Your task to perform on an android device: turn off notifications in google photos Image 0: 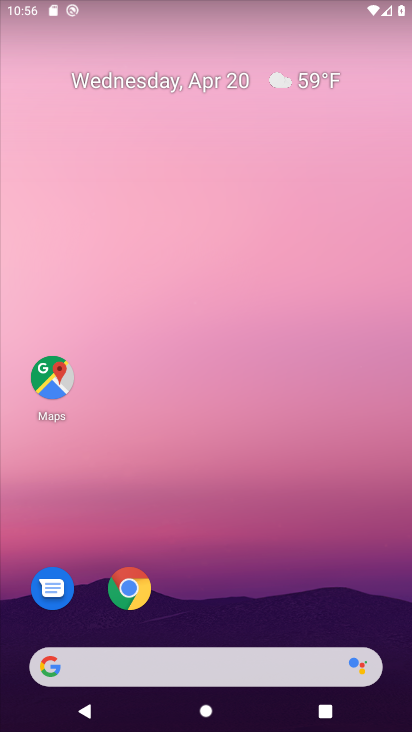
Step 0: drag from (248, 301) to (244, 69)
Your task to perform on an android device: turn off notifications in google photos Image 1: 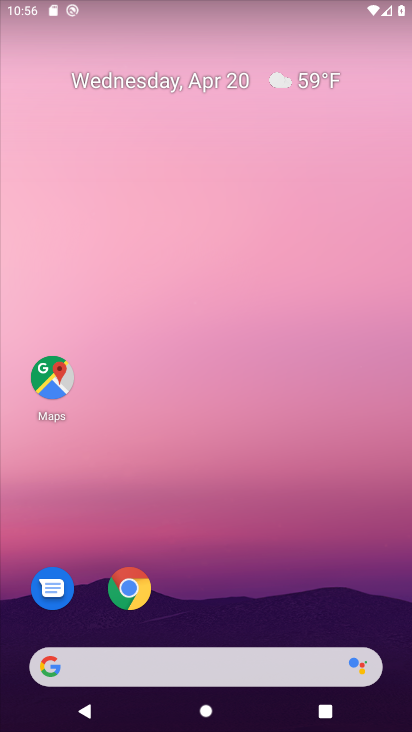
Step 1: drag from (204, 574) to (184, 44)
Your task to perform on an android device: turn off notifications in google photos Image 2: 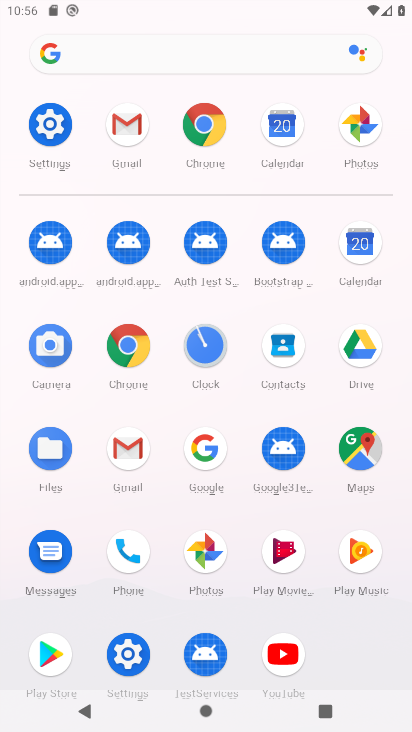
Step 2: click (215, 552)
Your task to perform on an android device: turn off notifications in google photos Image 3: 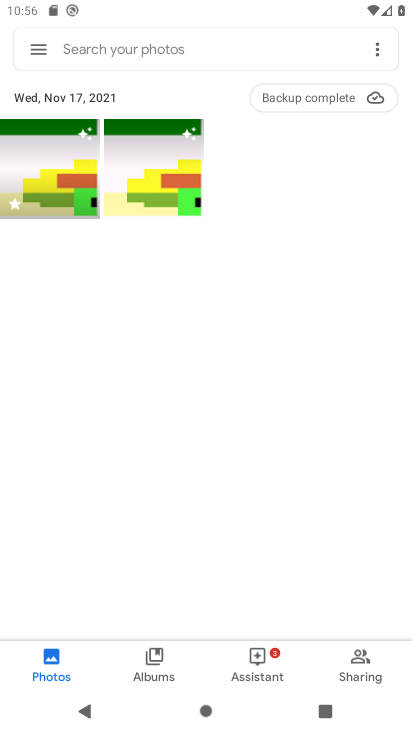
Step 3: click (39, 54)
Your task to perform on an android device: turn off notifications in google photos Image 4: 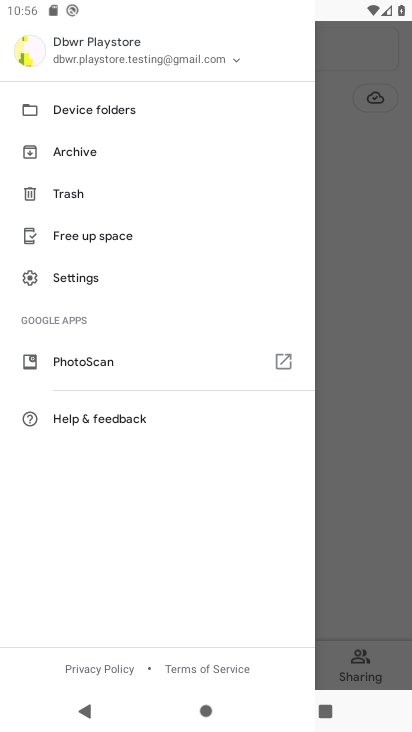
Step 4: click (63, 283)
Your task to perform on an android device: turn off notifications in google photos Image 5: 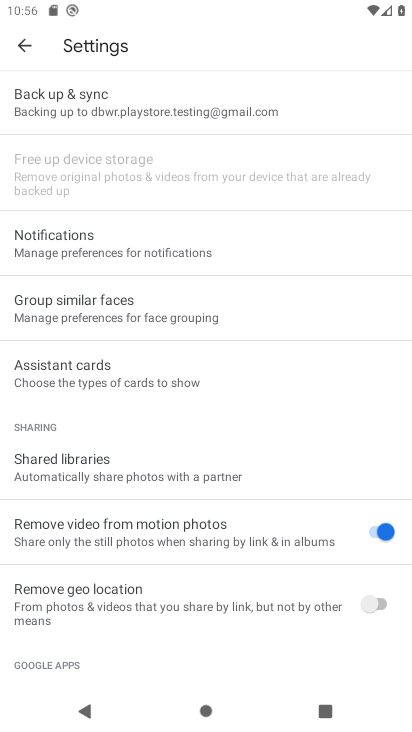
Step 5: click (71, 236)
Your task to perform on an android device: turn off notifications in google photos Image 6: 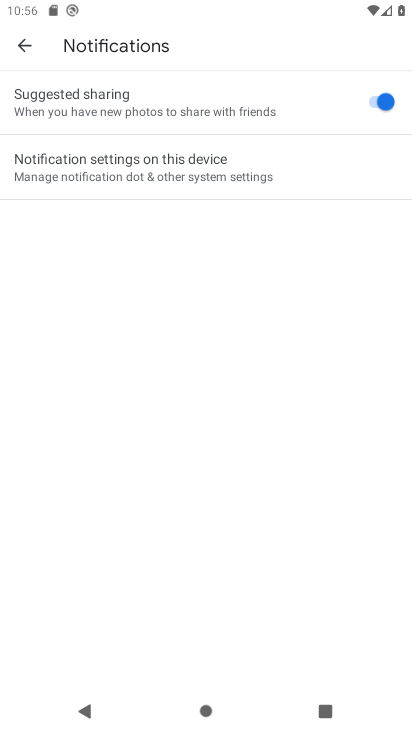
Step 6: click (156, 160)
Your task to perform on an android device: turn off notifications in google photos Image 7: 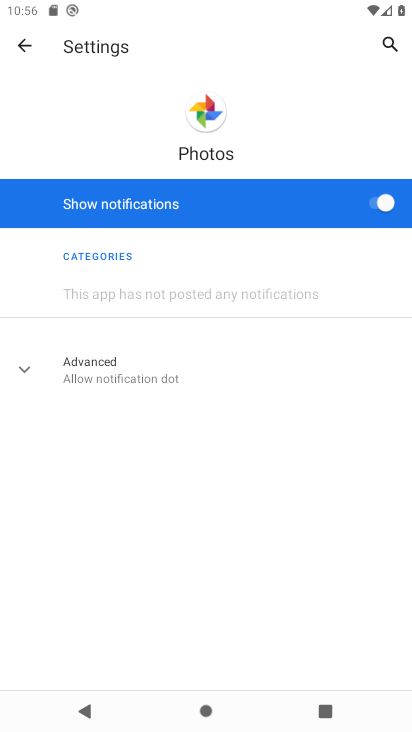
Step 7: click (378, 198)
Your task to perform on an android device: turn off notifications in google photos Image 8: 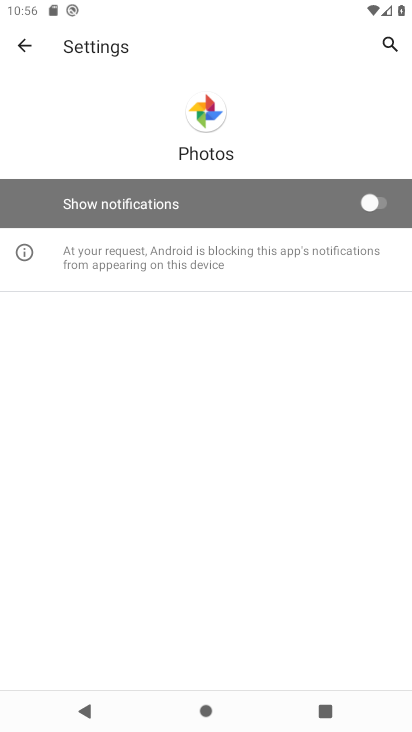
Step 8: task complete